Your task to perform on an android device: toggle airplane mode Image 0: 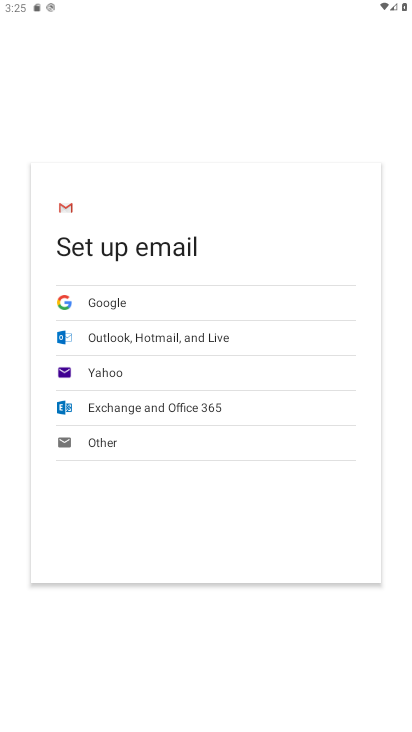
Step 0: press home button
Your task to perform on an android device: toggle airplane mode Image 1: 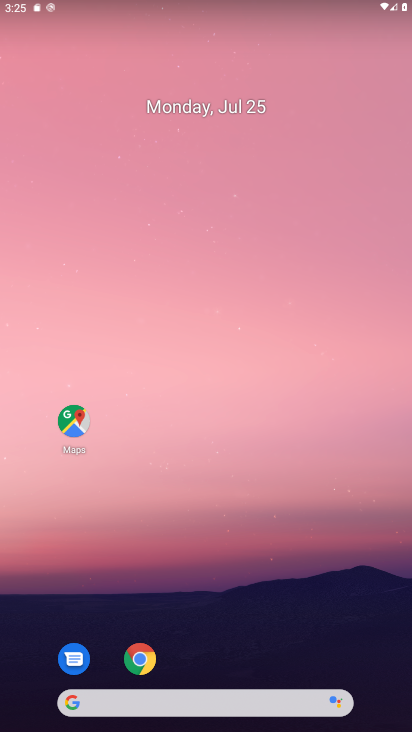
Step 1: drag from (178, 593) to (156, 72)
Your task to perform on an android device: toggle airplane mode Image 2: 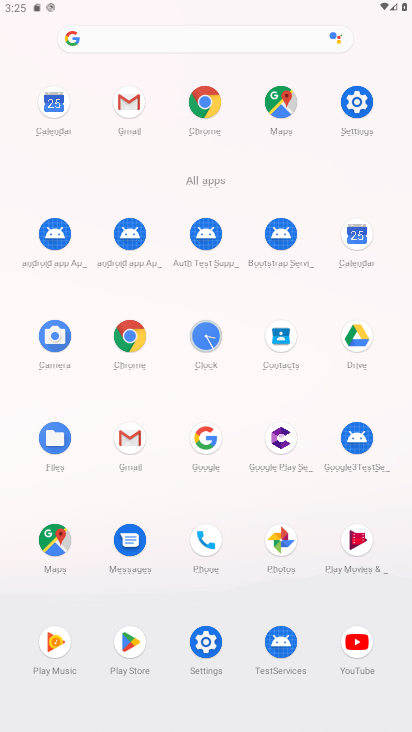
Step 2: click (356, 113)
Your task to perform on an android device: toggle airplane mode Image 3: 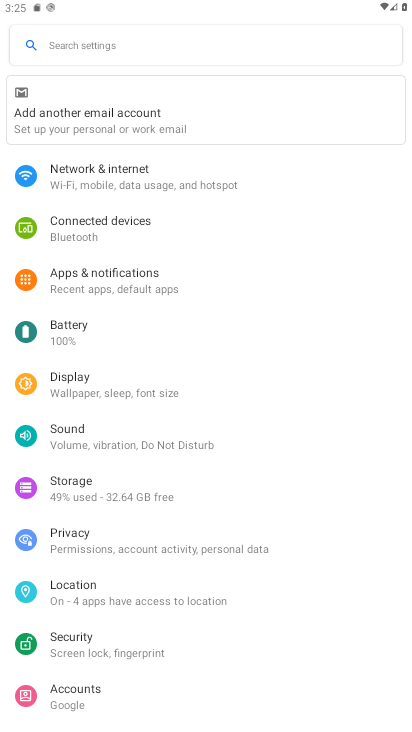
Step 3: click (88, 182)
Your task to perform on an android device: toggle airplane mode Image 4: 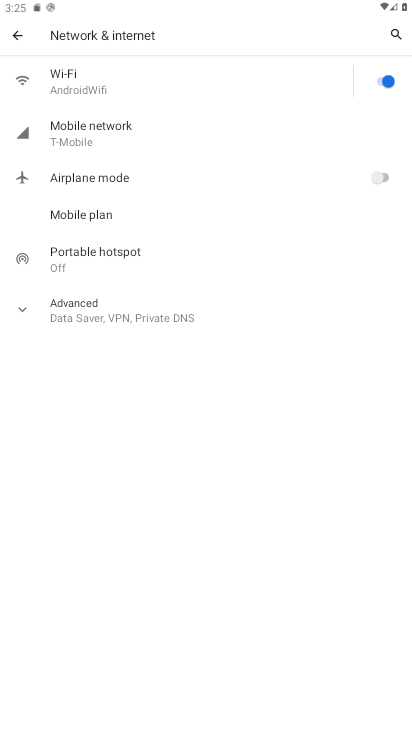
Step 4: click (385, 182)
Your task to perform on an android device: toggle airplane mode Image 5: 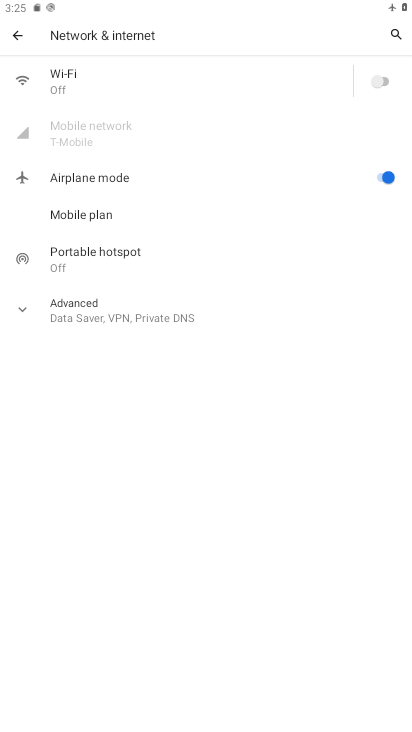
Step 5: task complete